Your task to perform on an android device: Open Google Maps Image 0: 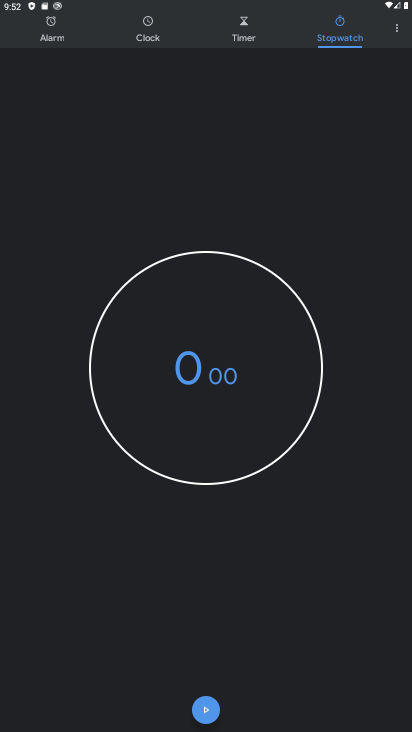
Step 0: press home button
Your task to perform on an android device: Open Google Maps Image 1: 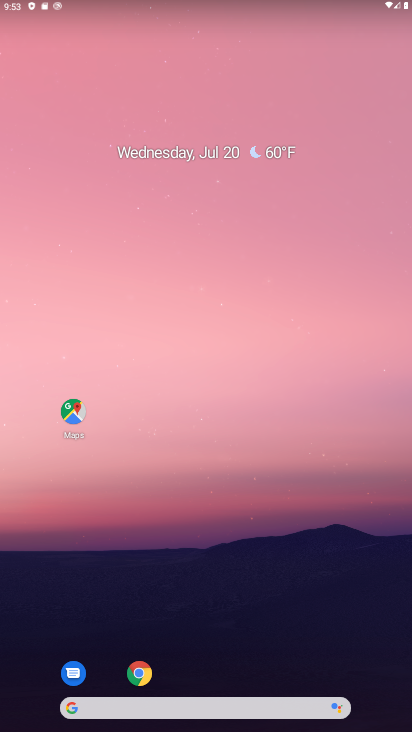
Step 1: click (70, 415)
Your task to perform on an android device: Open Google Maps Image 2: 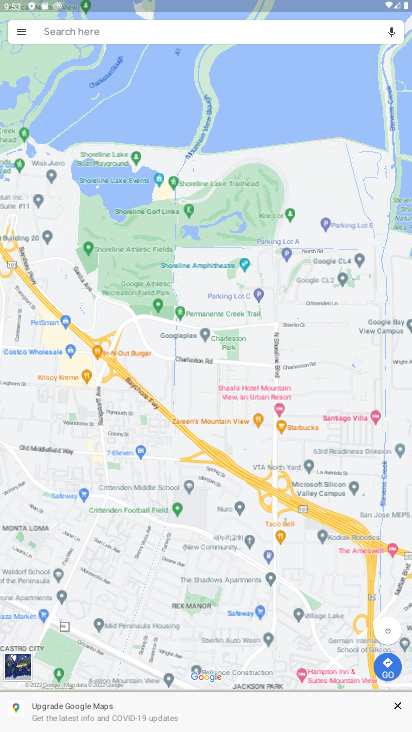
Step 2: task complete